Your task to perform on an android device: Go to internet settings Image 0: 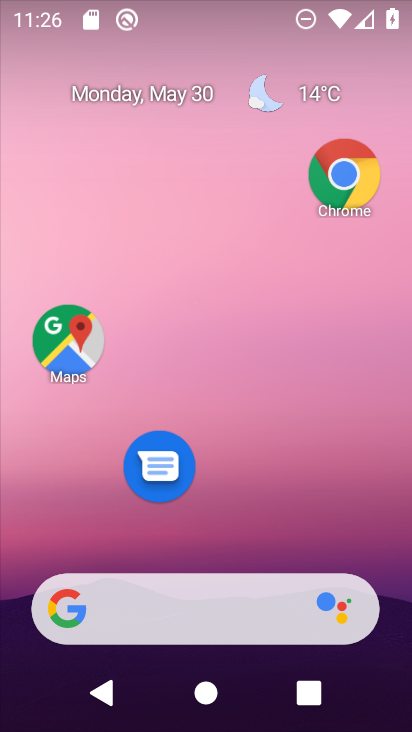
Step 0: drag from (244, 467) to (222, 1)
Your task to perform on an android device: Go to internet settings Image 1: 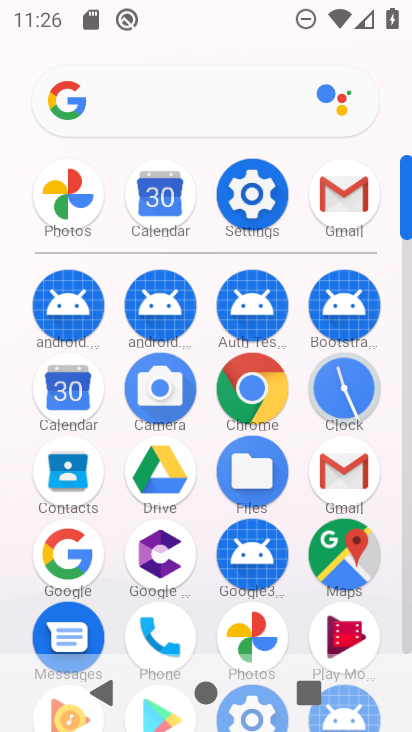
Step 1: click (257, 211)
Your task to perform on an android device: Go to internet settings Image 2: 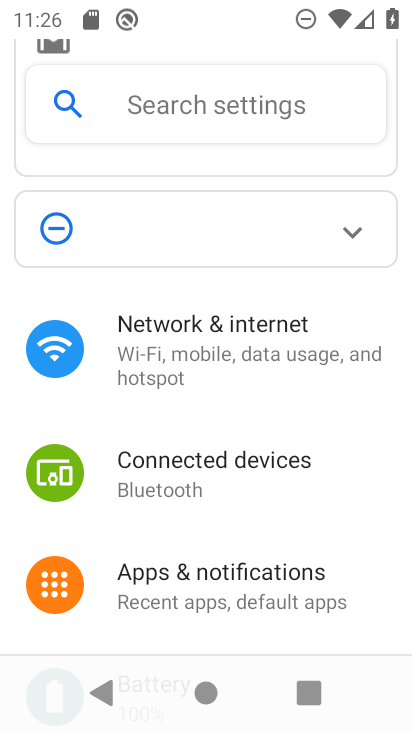
Step 2: click (213, 326)
Your task to perform on an android device: Go to internet settings Image 3: 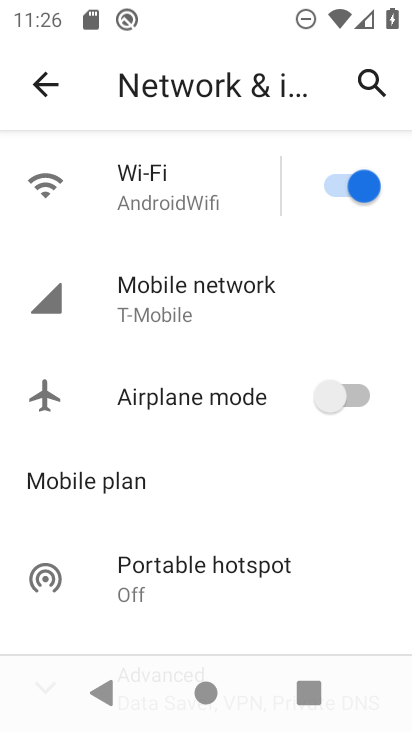
Step 3: task complete